Your task to perform on an android device: clear history in the chrome app Image 0: 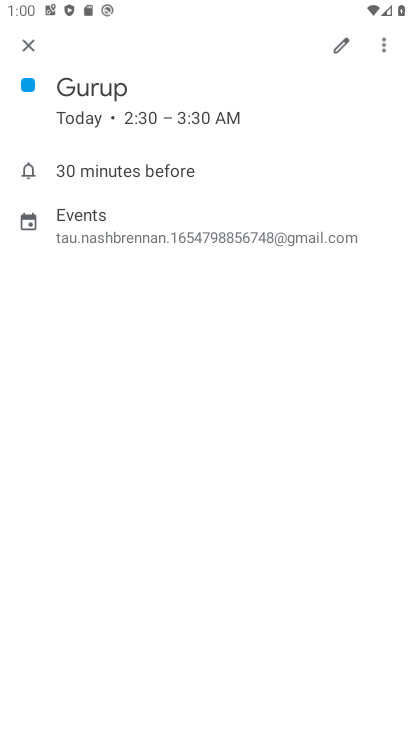
Step 0: press home button
Your task to perform on an android device: clear history in the chrome app Image 1: 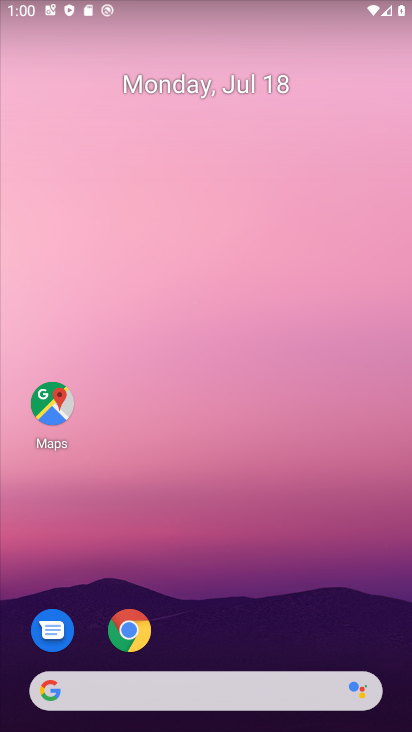
Step 1: click (141, 632)
Your task to perform on an android device: clear history in the chrome app Image 2: 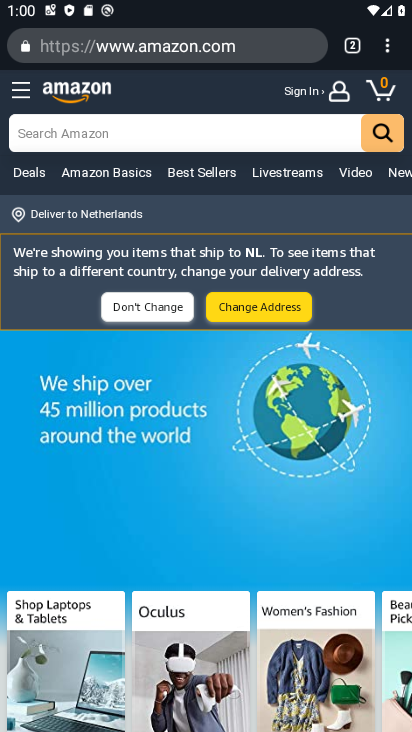
Step 2: click (386, 49)
Your task to perform on an android device: clear history in the chrome app Image 3: 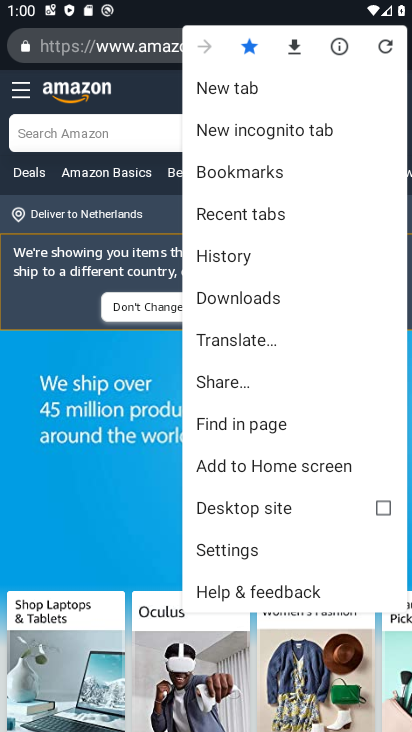
Step 3: click (246, 253)
Your task to perform on an android device: clear history in the chrome app Image 4: 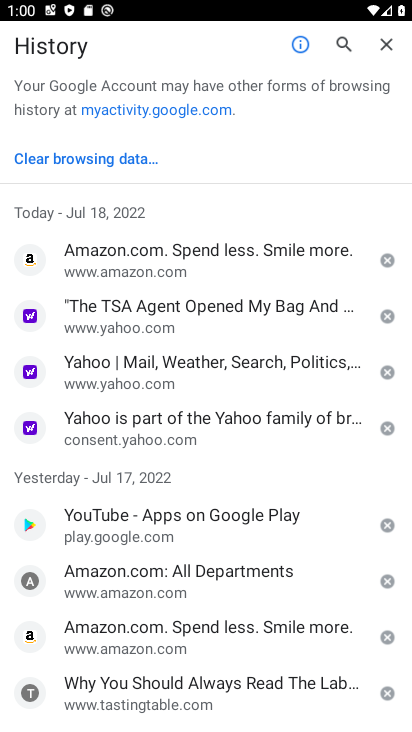
Step 4: click (128, 156)
Your task to perform on an android device: clear history in the chrome app Image 5: 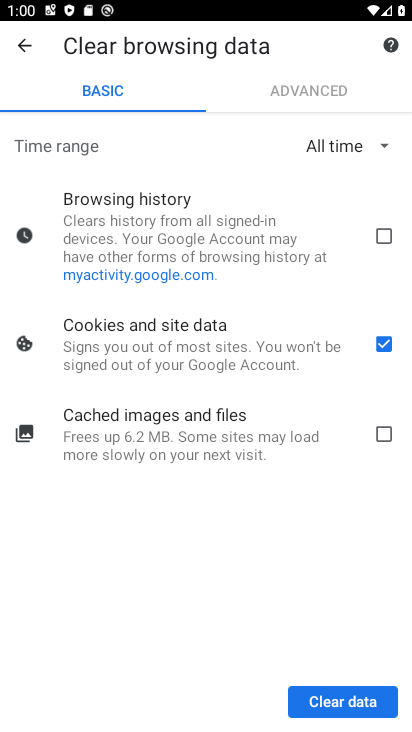
Step 5: click (382, 233)
Your task to perform on an android device: clear history in the chrome app Image 6: 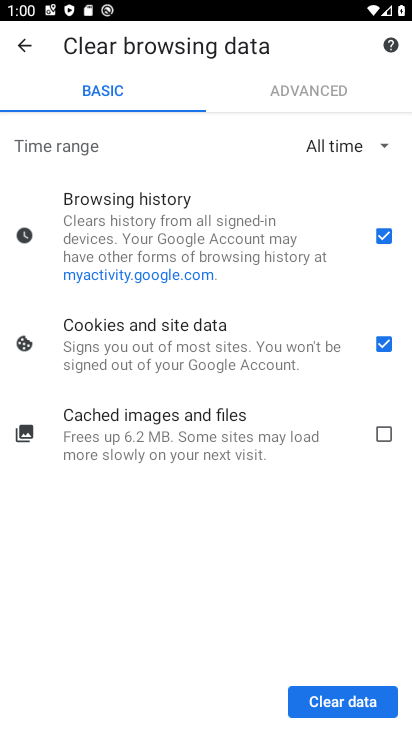
Step 6: click (378, 432)
Your task to perform on an android device: clear history in the chrome app Image 7: 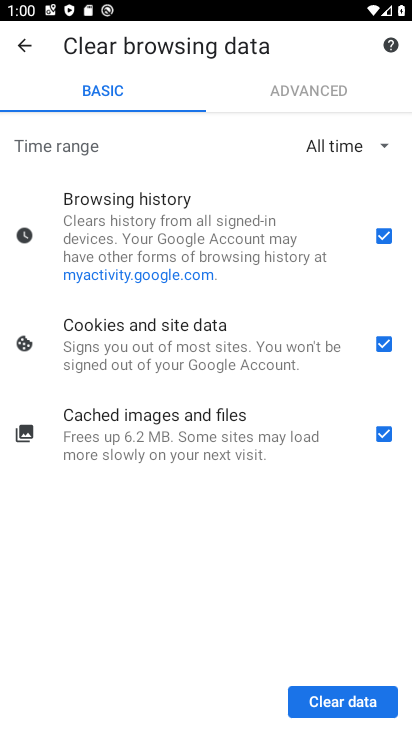
Step 7: click (359, 700)
Your task to perform on an android device: clear history in the chrome app Image 8: 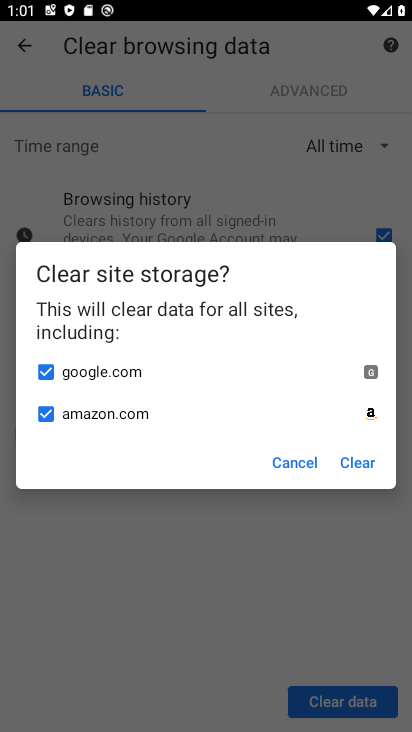
Step 8: click (376, 455)
Your task to perform on an android device: clear history in the chrome app Image 9: 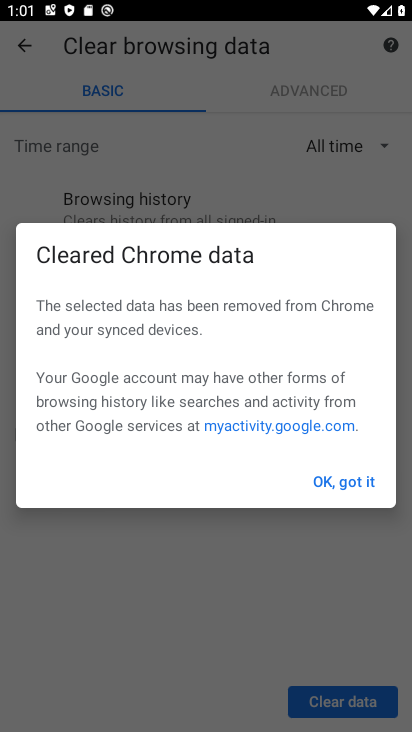
Step 9: click (361, 480)
Your task to perform on an android device: clear history in the chrome app Image 10: 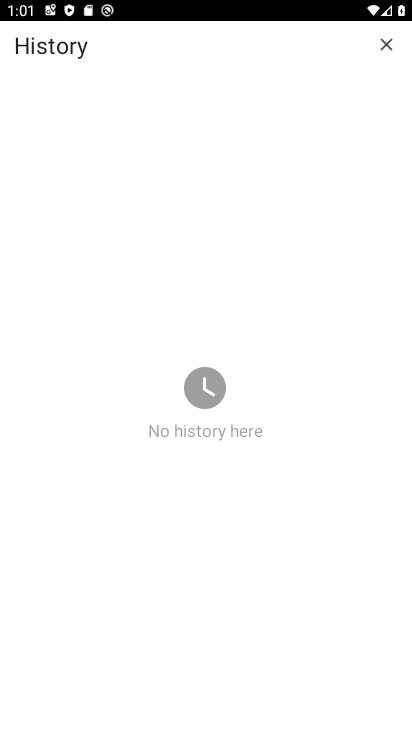
Step 10: task complete